Your task to perform on an android device: What's on my calendar tomorrow? Image 0: 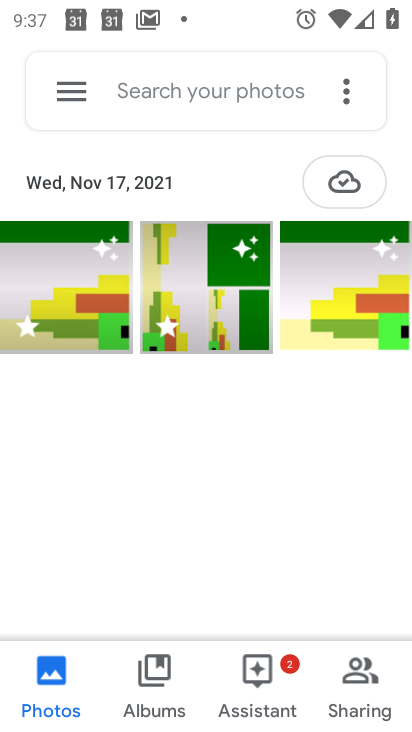
Step 0: press home button
Your task to perform on an android device: What's on my calendar tomorrow? Image 1: 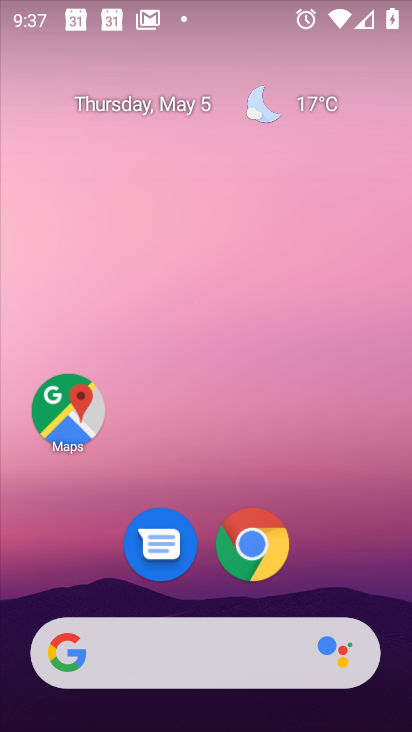
Step 1: drag from (349, 550) to (333, 163)
Your task to perform on an android device: What's on my calendar tomorrow? Image 2: 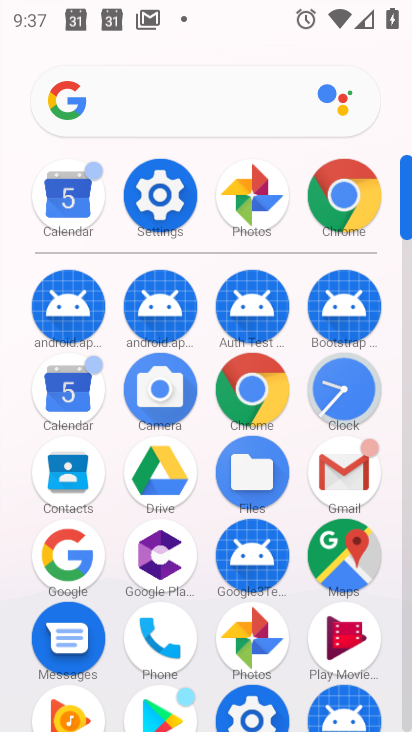
Step 2: click (65, 401)
Your task to perform on an android device: What's on my calendar tomorrow? Image 3: 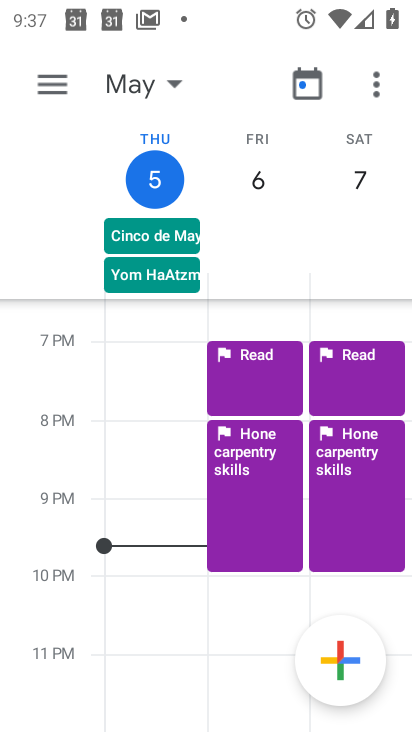
Step 3: task complete